Your task to perform on an android device: Is it going to rain this weekend? Image 0: 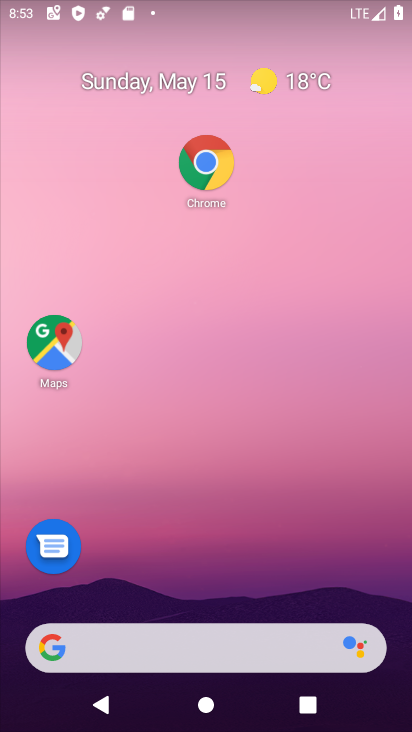
Step 0: drag from (232, 583) to (308, 238)
Your task to perform on an android device: Is it going to rain this weekend? Image 1: 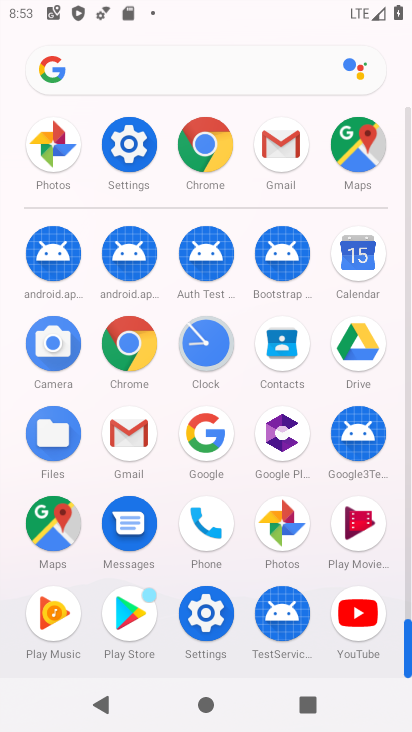
Step 1: click (215, 128)
Your task to perform on an android device: Is it going to rain this weekend? Image 2: 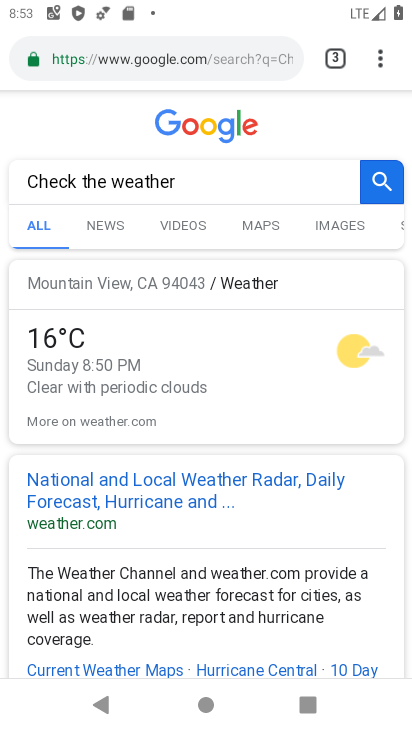
Step 2: click (206, 180)
Your task to perform on an android device: Is it going to rain this weekend? Image 3: 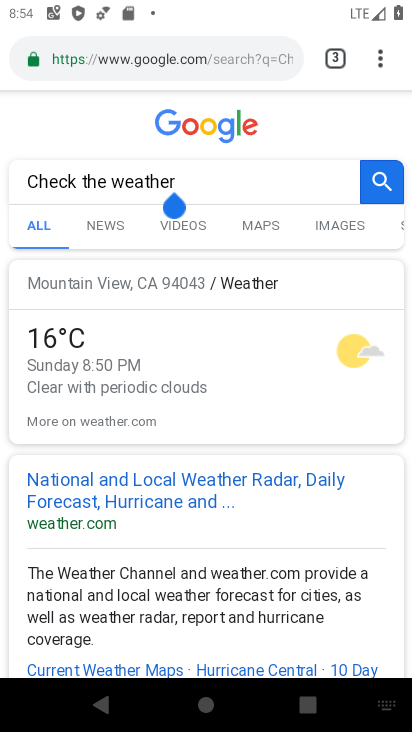
Step 3: click (262, 177)
Your task to perform on an android device: Is it going to rain this weekend? Image 4: 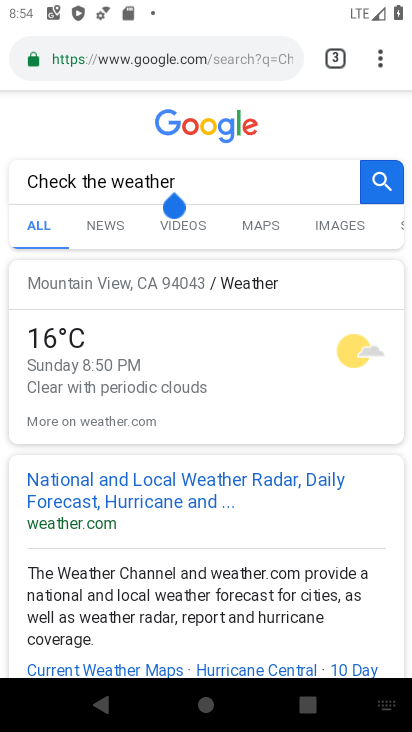
Step 4: click (372, 52)
Your task to perform on an android device: Is it going to rain this weekend? Image 5: 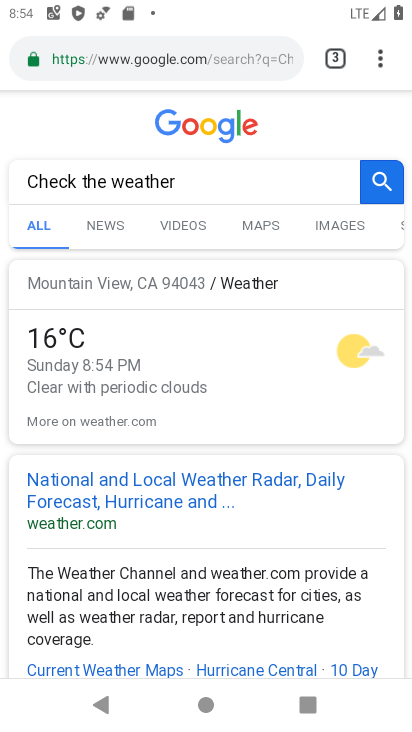
Step 5: click (368, 54)
Your task to perform on an android device: Is it going to rain this weekend? Image 6: 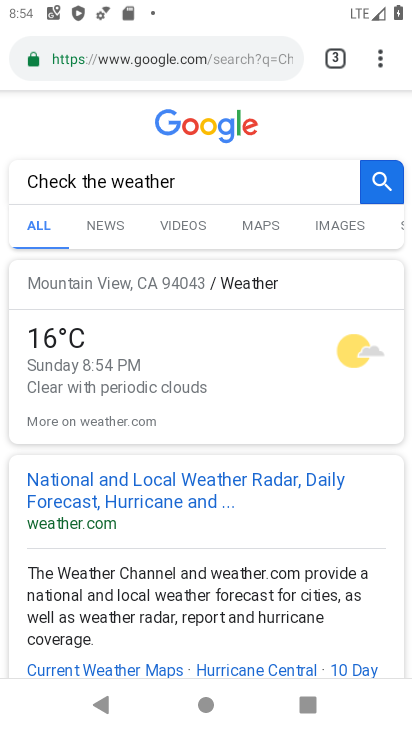
Step 6: click (374, 51)
Your task to perform on an android device: Is it going to rain this weekend? Image 7: 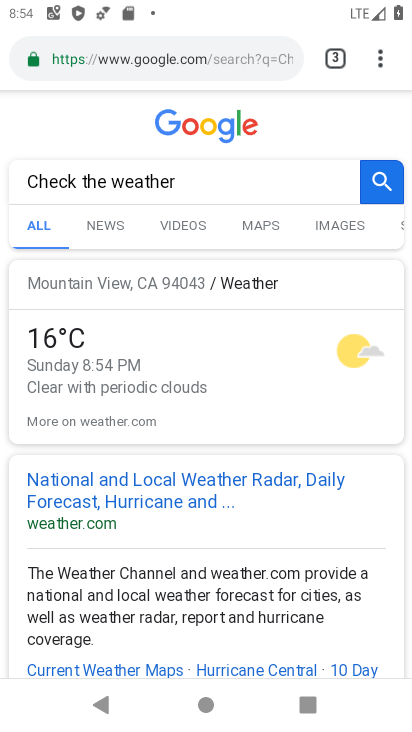
Step 7: click (389, 56)
Your task to perform on an android device: Is it going to rain this weekend? Image 8: 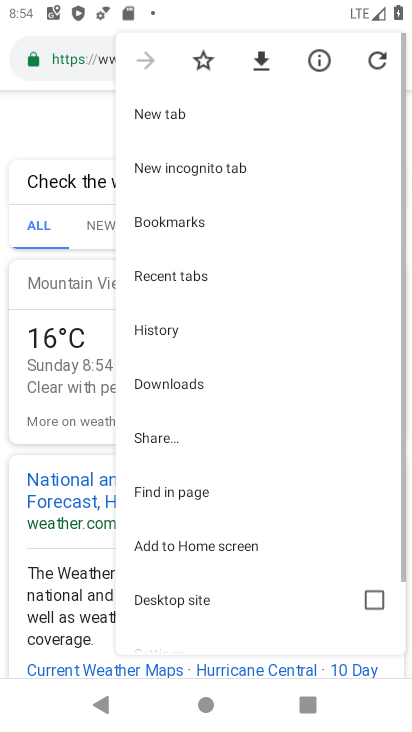
Step 8: click (182, 110)
Your task to perform on an android device: Is it going to rain this weekend? Image 9: 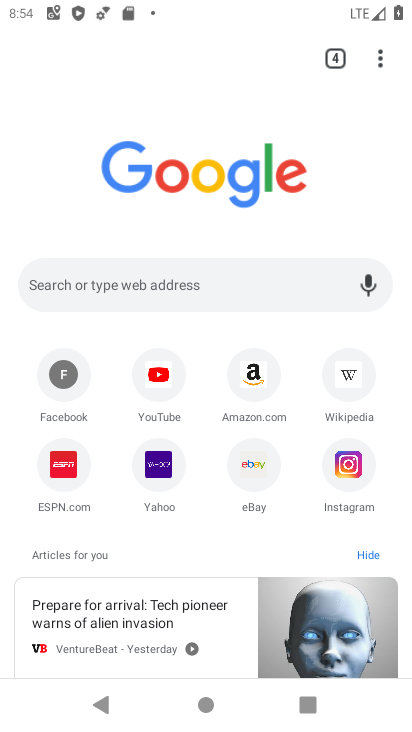
Step 9: click (218, 284)
Your task to perform on an android device: Is it going to rain this weekend? Image 10: 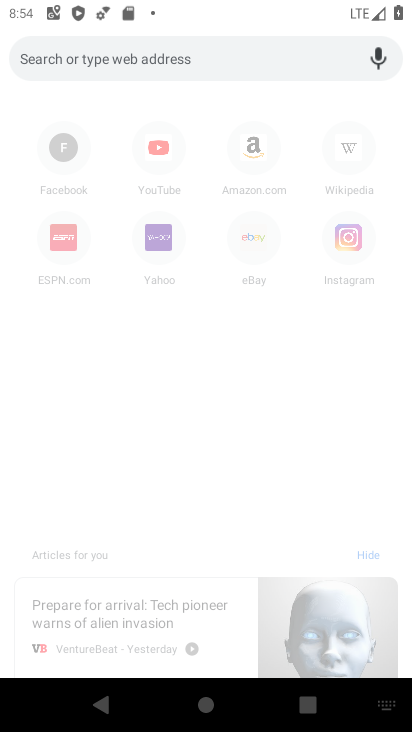
Step 10: type "Is it going to rain this weekend?"
Your task to perform on an android device: Is it going to rain this weekend? Image 11: 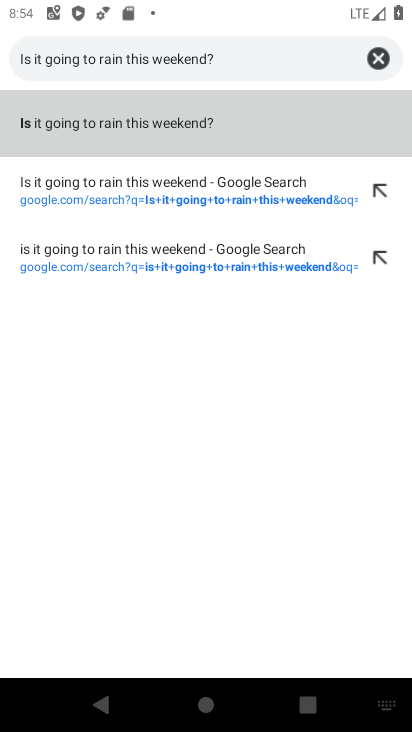
Step 11: click (193, 118)
Your task to perform on an android device: Is it going to rain this weekend? Image 12: 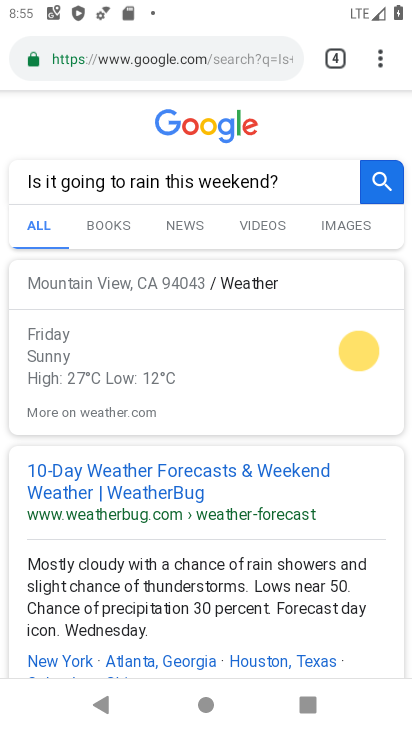
Step 12: task complete